Your task to perform on an android device: Open Maps and search for coffee Image 0: 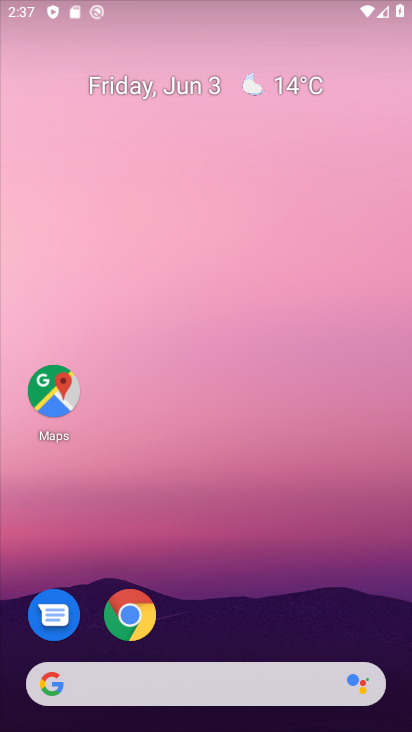
Step 0: press home button
Your task to perform on an android device: Open Maps and search for coffee Image 1: 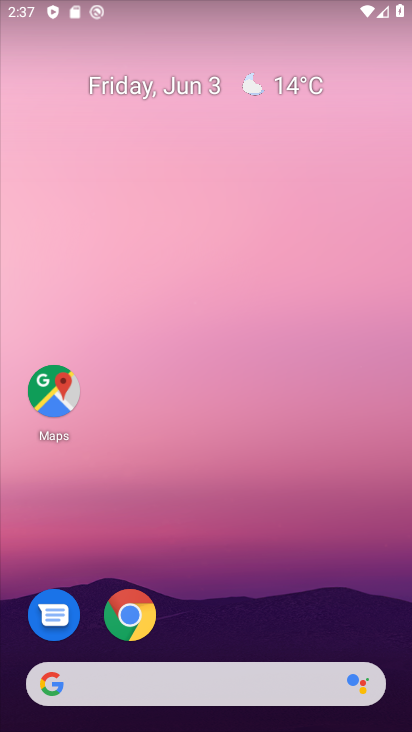
Step 1: click (57, 394)
Your task to perform on an android device: Open Maps and search for coffee Image 2: 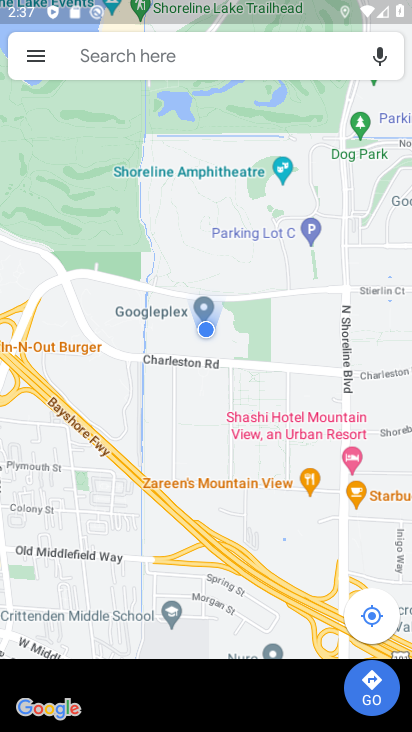
Step 2: click (181, 57)
Your task to perform on an android device: Open Maps and search for coffee Image 3: 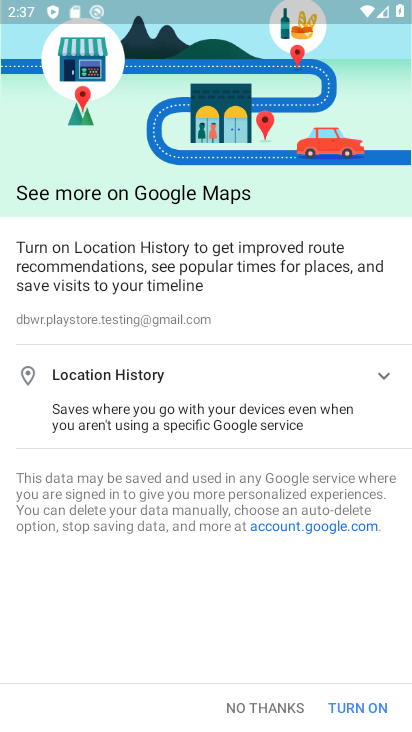
Step 3: click (258, 706)
Your task to perform on an android device: Open Maps and search for coffee Image 4: 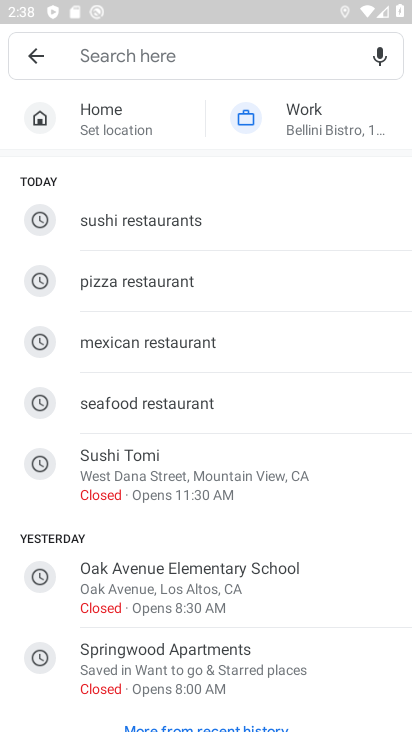
Step 4: click (116, 48)
Your task to perform on an android device: Open Maps and search for coffee Image 5: 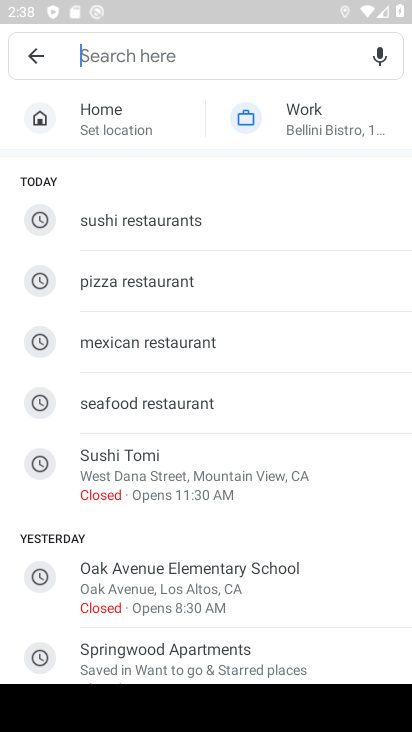
Step 5: type " coffee"
Your task to perform on an android device: Open Maps and search for coffee Image 6: 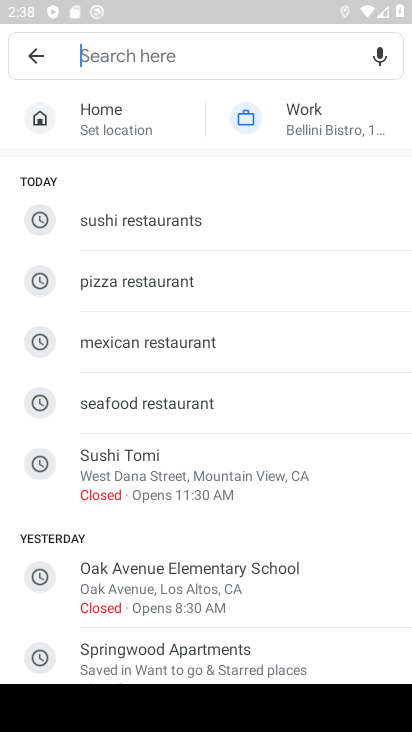
Step 6: click (183, 51)
Your task to perform on an android device: Open Maps and search for coffee Image 7: 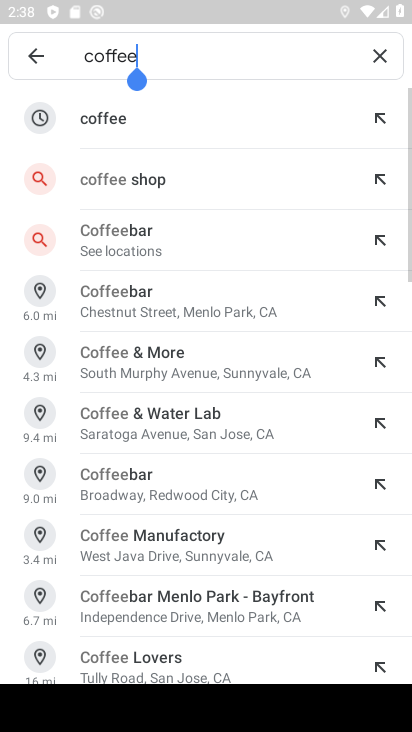
Step 7: click (93, 116)
Your task to perform on an android device: Open Maps and search for coffee Image 8: 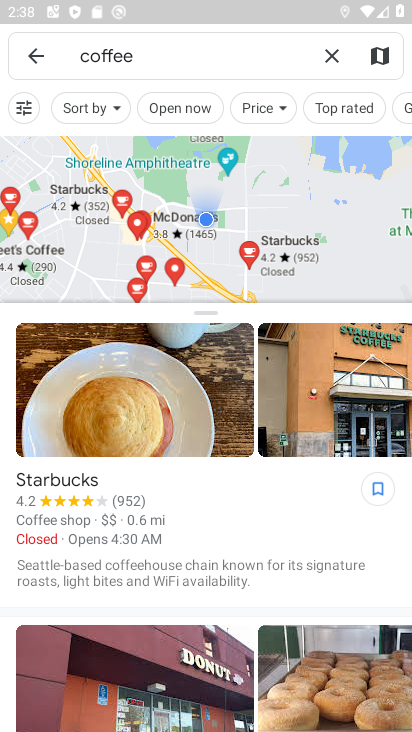
Step 8: task complete